Your task to perform on an android device: turn off location history Image 0: 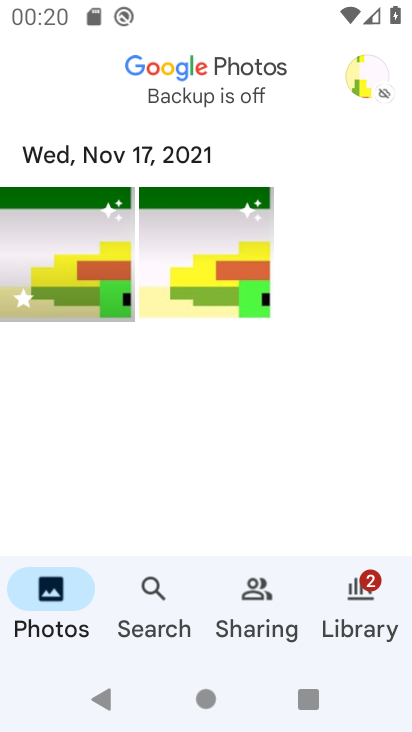
Step 0: press home button
Your task to perform on an android device: turn off location history Image 1: 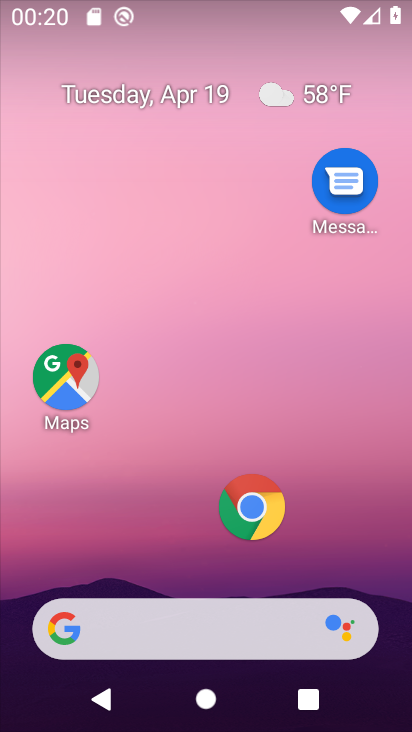
Step 1: drag from (173, 509) to (298, 12)
Your task to perform on an android device: turn off location history Image 2: 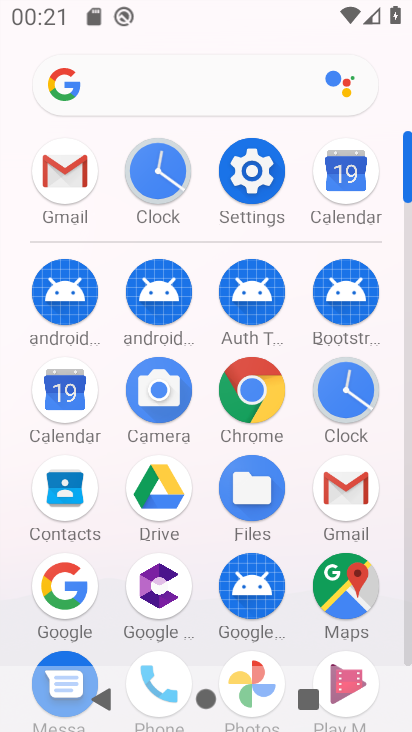
Step 2: click (258, 183)
Your task to perform on an android device: turn off location history Image 3: 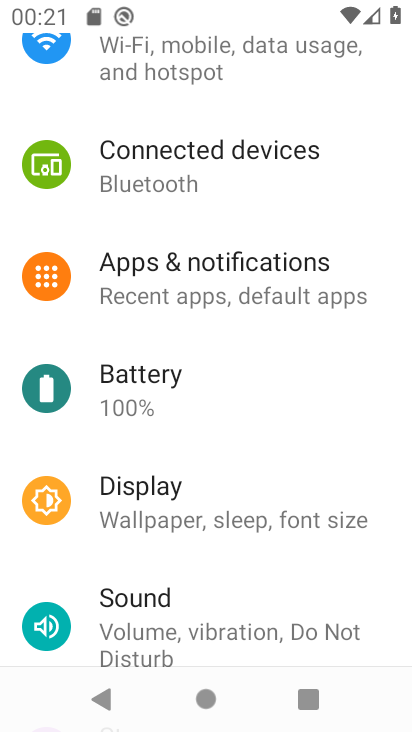
Step 3: drag from (177, 518) to (248, 273)
Your task to perform on an android device: turn off location history Image 4: 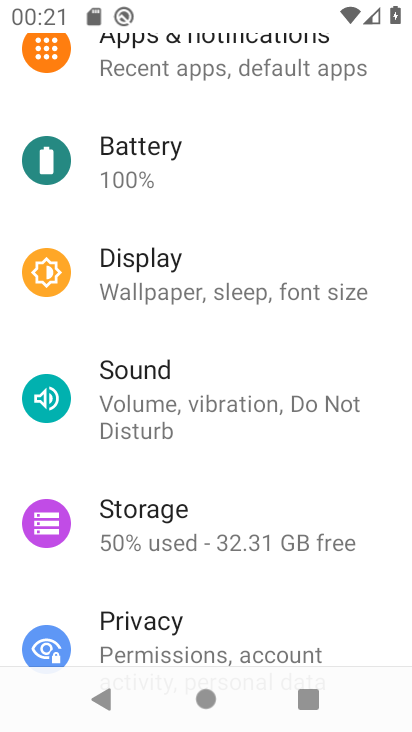
Step 4: drag from (153, 582) to (217, 182)
Your task to perform on an android device: turn off location history Image 5: 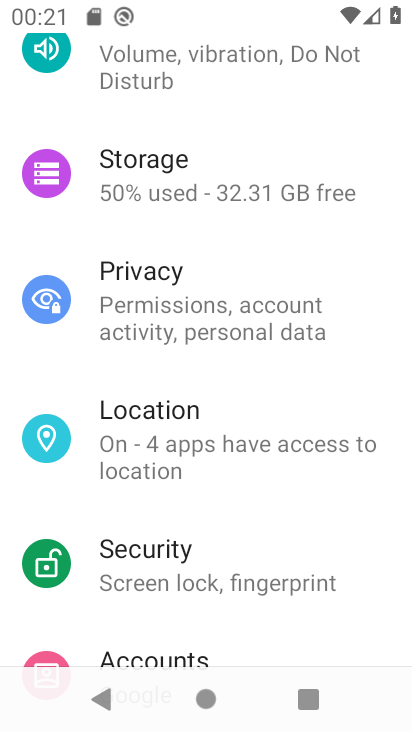
Step 5: click (158, 461)
Your task to perform on an android device: turn off location history Image 6: 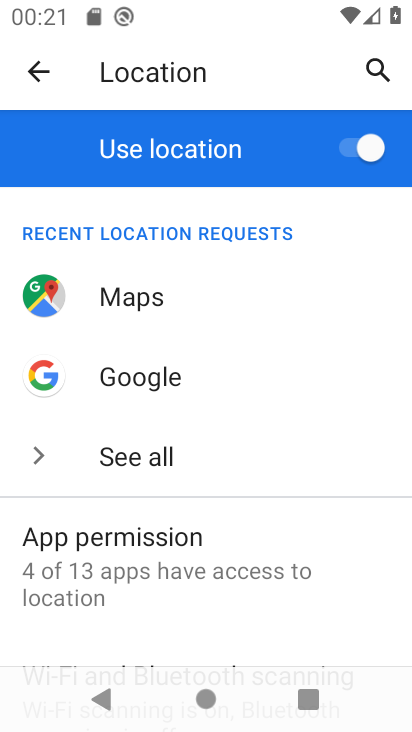
Step 6: drag from (196, 470) to (271, 174)
Your task to perform on an android device: turn off location history Image 7: 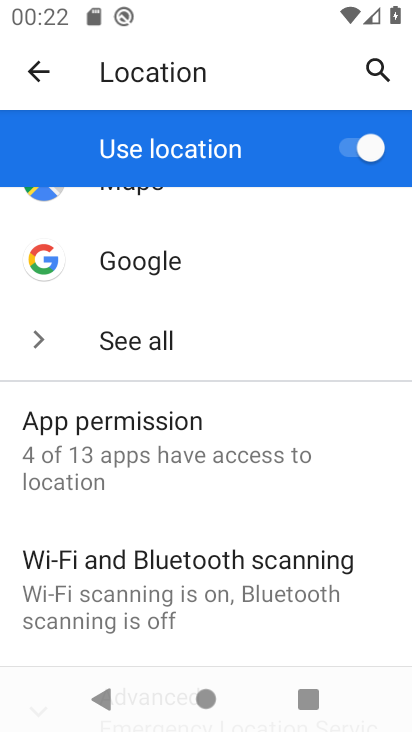
Step 7: drag from (175, 566) to (269, 184)
Your task to perform on an android device: turn off location history Image 8: 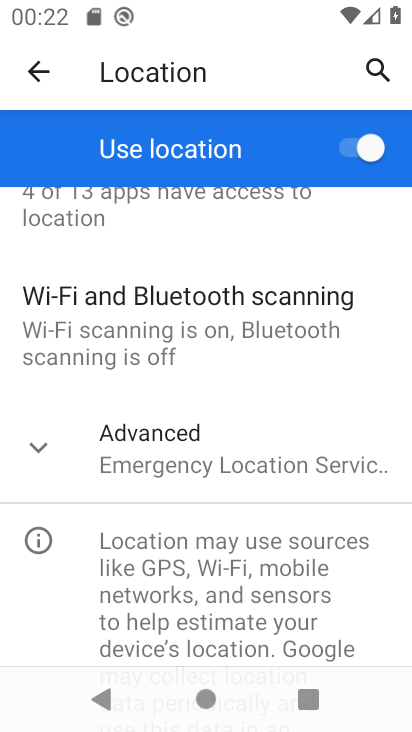
Step 8: click (146, 428)
Your task to perform on an android device: turn off location history Image 9: 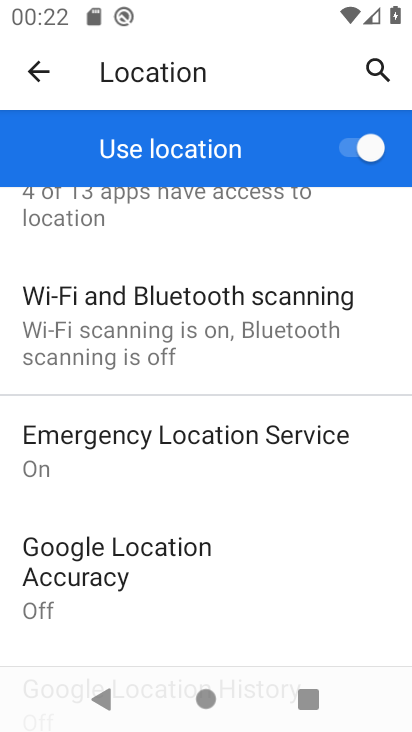
Step 9: drag from (145, 531) to (190, 391)
Your task to perform on an android device: turn off location history Image 10: 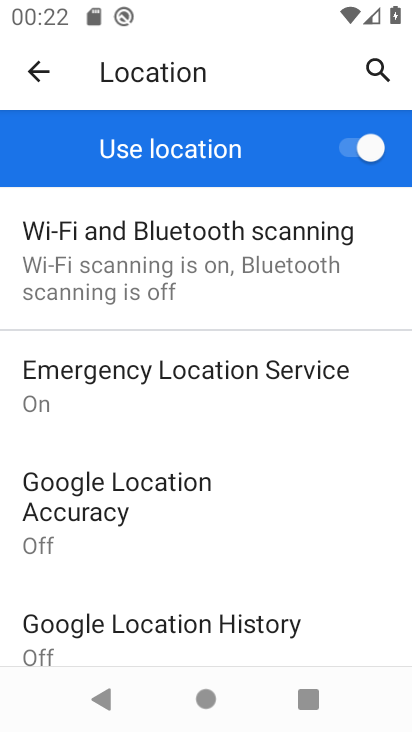
Step 10: click (134, 624)
Your task to perform on an android device: turn off location history Image 11: 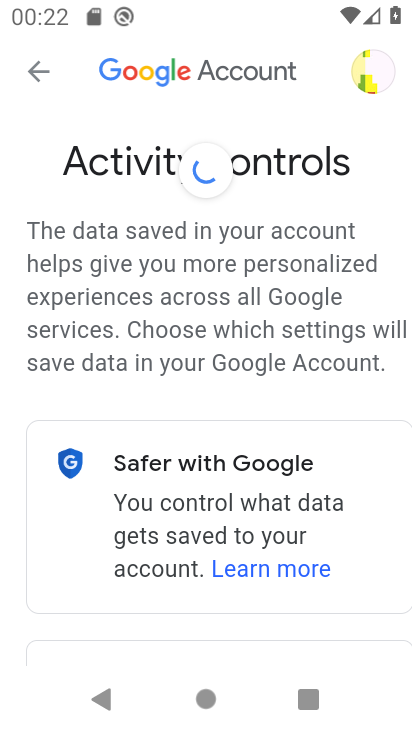
Step 11: task complete